Your task to perform on an android device: Go to display settings Image 0: 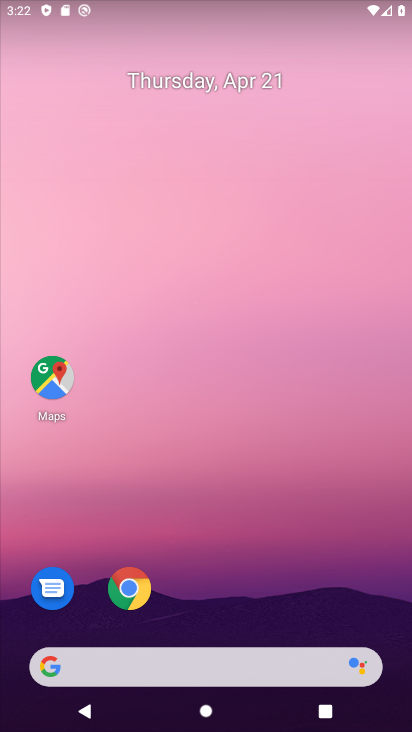
Step 0: drag from (247, 658) to (246, 38)
Your task to perform on an android device: Go to display settings Image 1: 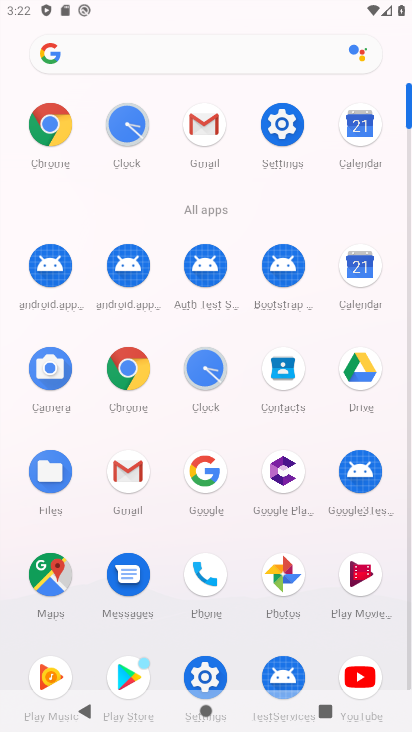
Step 1: click (291, 139)
Your task to perform on an android device: Go to display settings Image 2: 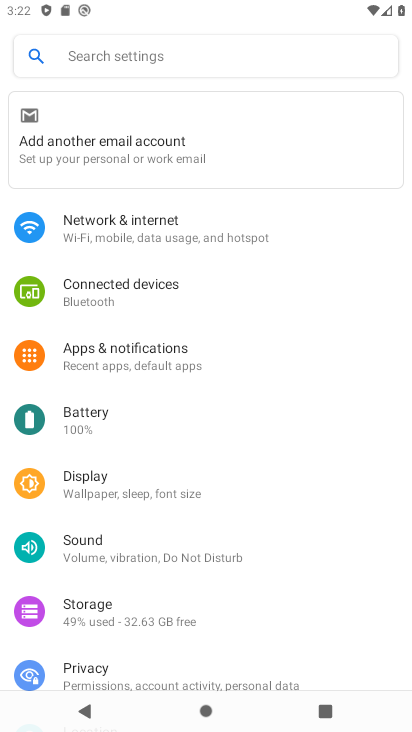
Step 2: click (114, 483)
Your task to perform on an android device: Go to display settings Image 3: 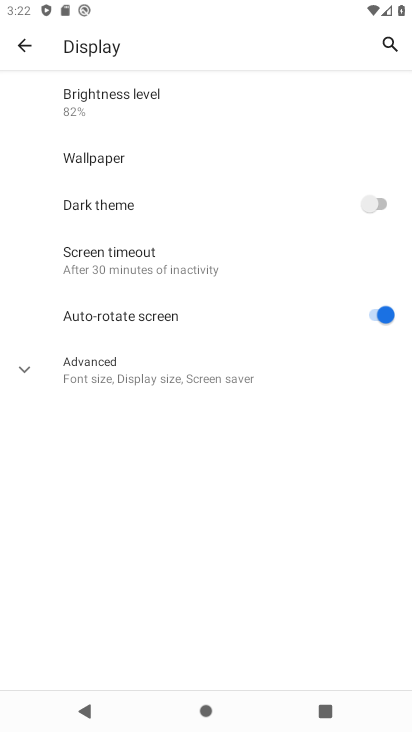
Step 3: task complete